Your task to perform on an android device: What is the news today? Image 0: 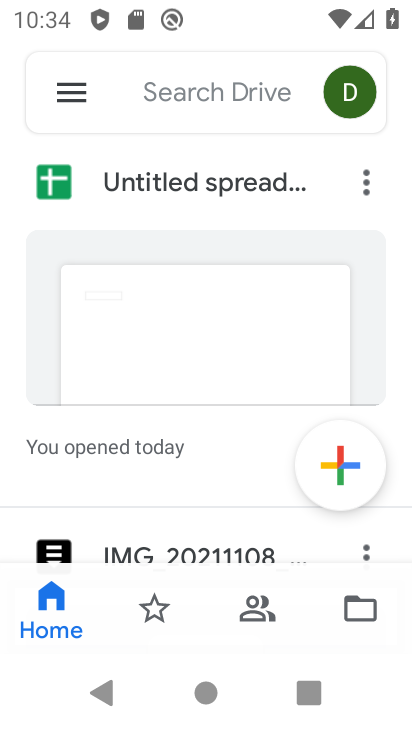
Step 0: press home button
Your task to perform on an android device: What is the news today? Image 1: 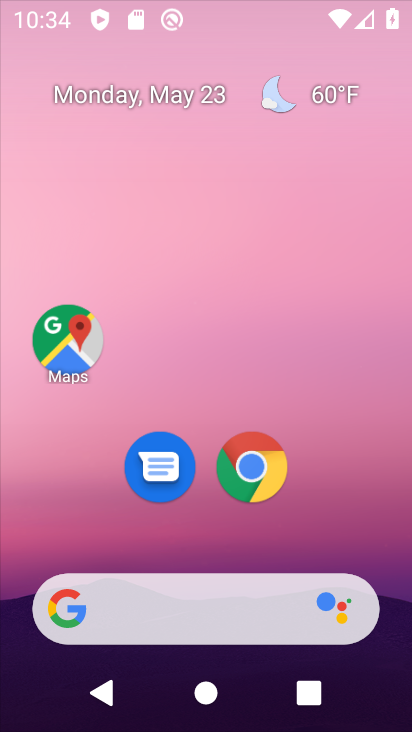
Step 1: drag from (190, 673) to (238, 56)
Your task to perform on an android device: What is the news today? Image 2: 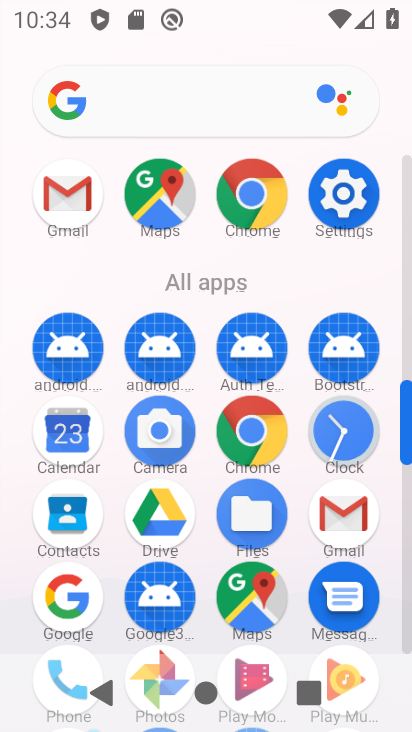
Step 2: click (254, 417)
Your task to perform on an android device: What is the news today? Image 3: 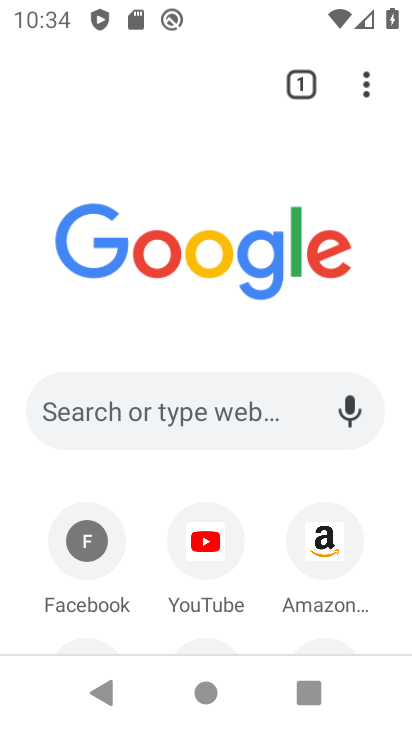
Step 3: click (316, 433)
Your task to perform on an android device: What is the news today? Image 4: 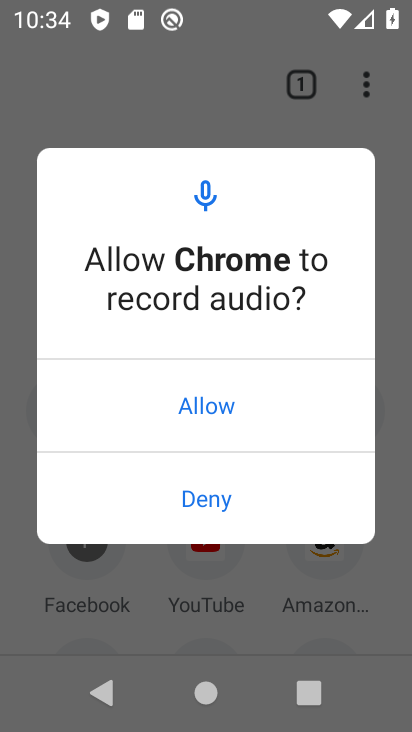
Step 4: click (302, 411)
Your task to perform on an android device: What is the news today? Image 5: 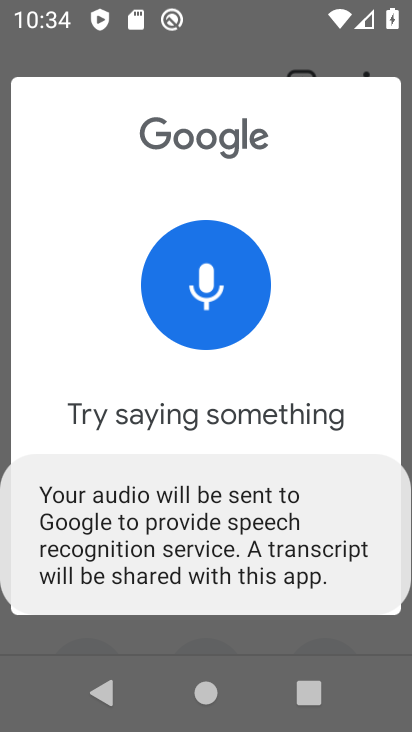
Step 5: click (270, 303)
Your task to perform on an android device: What is the news today? Image 6: 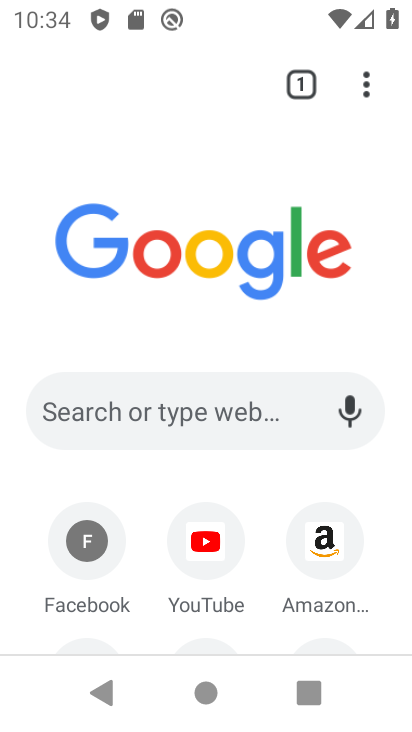
Step 6: click (233, 409)
Your task to perform on an android device: What is the news today? Image 7: 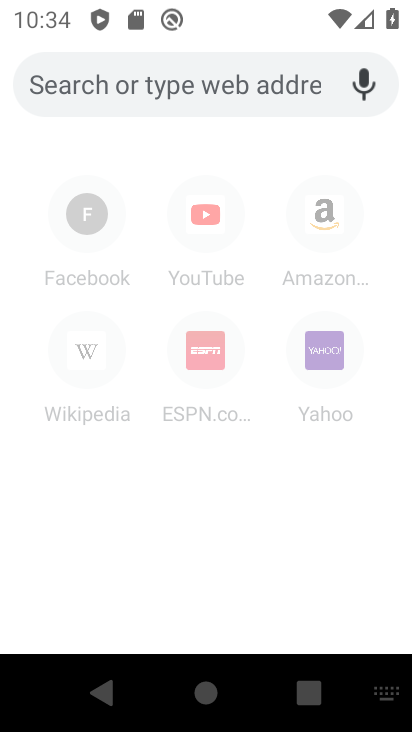
Step 7: type "news today"
Your task to perform on an android device: What is the news today? Image 8: 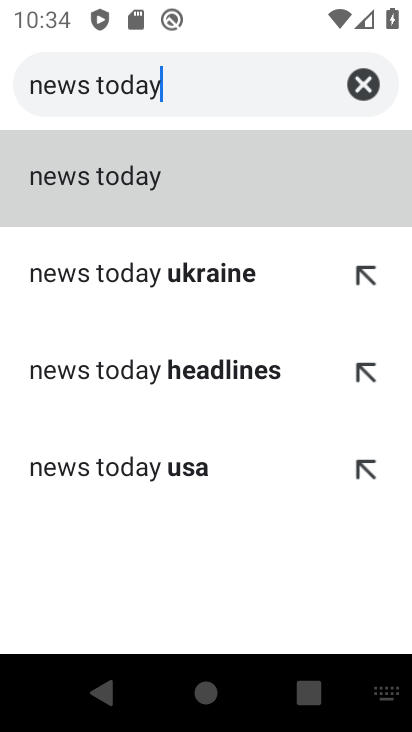
Step 8: click (199, 139)
Your task to perform on an android device: What is the news today? Image 9: 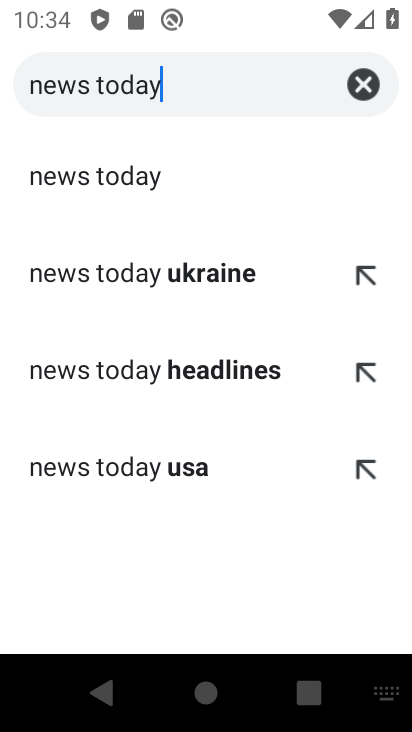
Step 9: click (145, 198)
Your task to perform on an android device: What is the news today? Image 10: 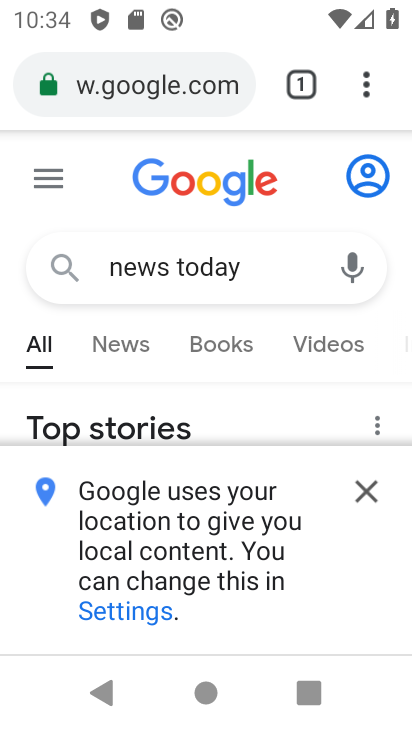
Step 10: task complete